Your task to perform on an android device: move a message to another label in the gmail app Image 0: 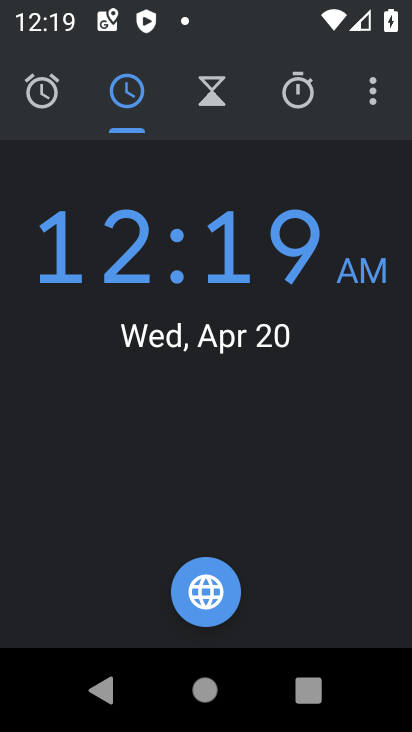
Step 0: press home button
Your task to perform on an android device: move a message to another label in the gmail app Image 1: 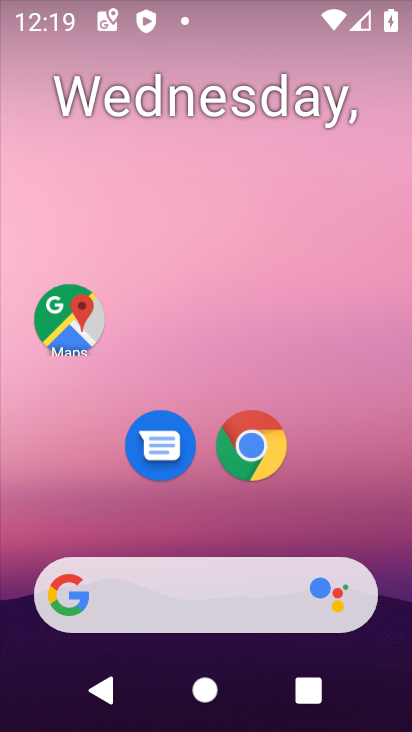
Step 1: drag from (329, 377) to (308, 145)
Your task to perform on an android device: move a message to another label in the gmail app Image 2: 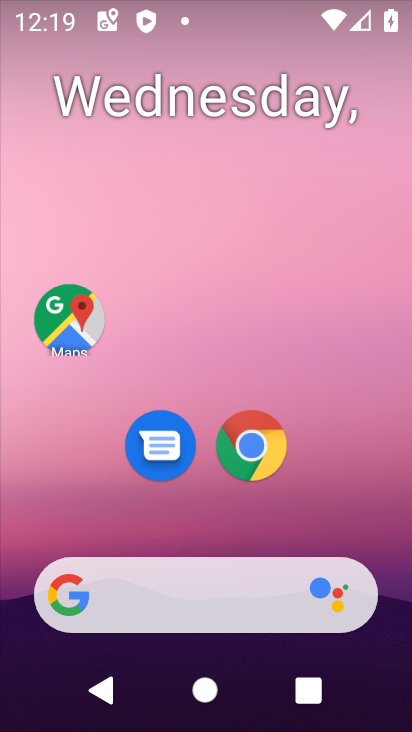
Step 2: drag from (347, 483) to (287, 2)
Your task to perform on an android device: move a message to another label in the gmail app Image 3: 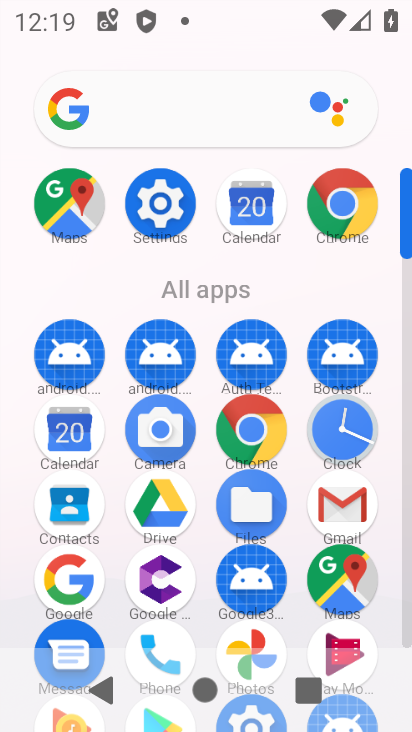
Step 3: click (345, 527)
Your task to perform on an android device: move a message to another label in the gmail app Image 4: 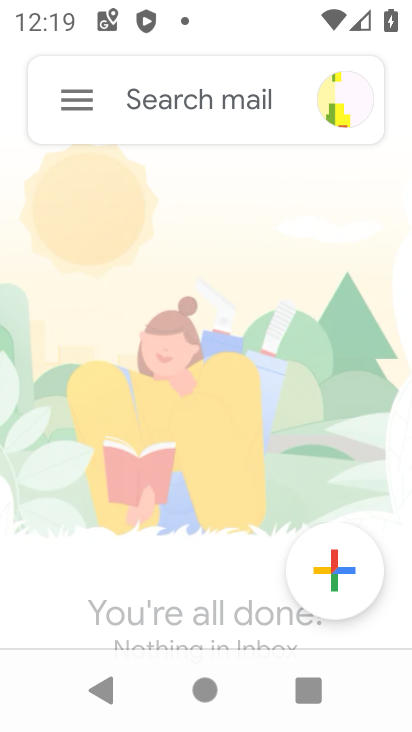
Step 4: click (72, 85)
Your task to perform on an android device: move a message to another label in the gmail app Image 5: 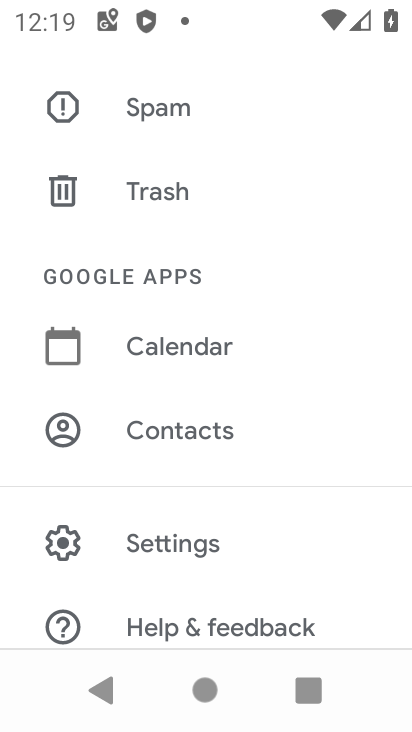
Step 5: drag from (244, 260) to (241, 665)
Your task to perform on an android device: move a message to another label in the gmail app Image 6: 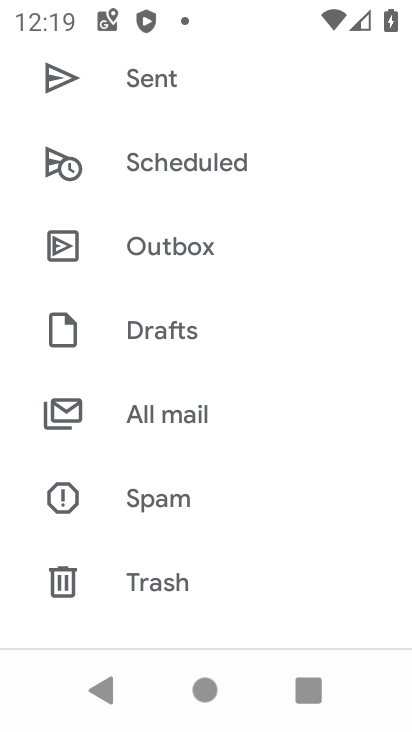
Step 6: click (175, 410)
Your task to perform on an android device: move a message to another label in the gmail app Image 7: 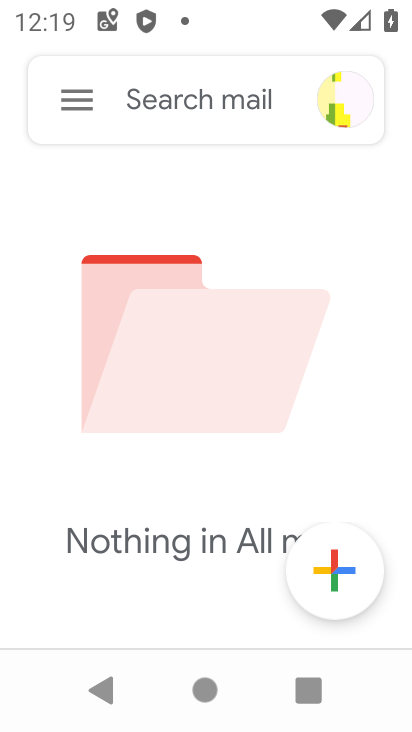
Step 7: task complete